Your task to perform on an android device: check data usage Image 0: 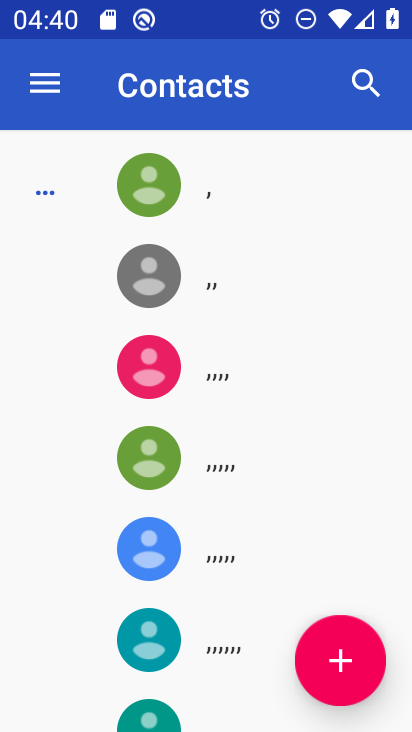
Step 0: press home button
Your task to perform on an android device: check data usage Image 1: 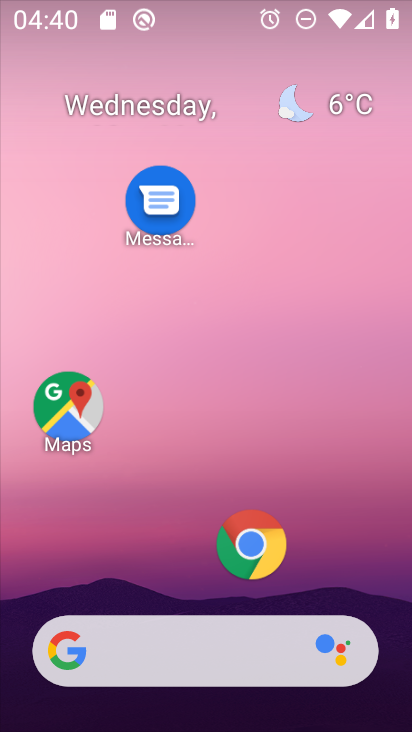
Step 1: drag from (167, 594) to (162, 57)
Your task to perform on an android device: check data usage Image 2: 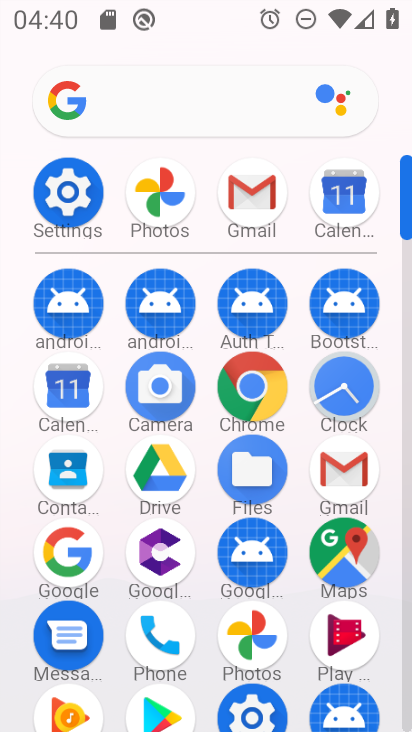
Step 2: click (60, 191)
Your task to perform on an android device: check data usage Image 3: 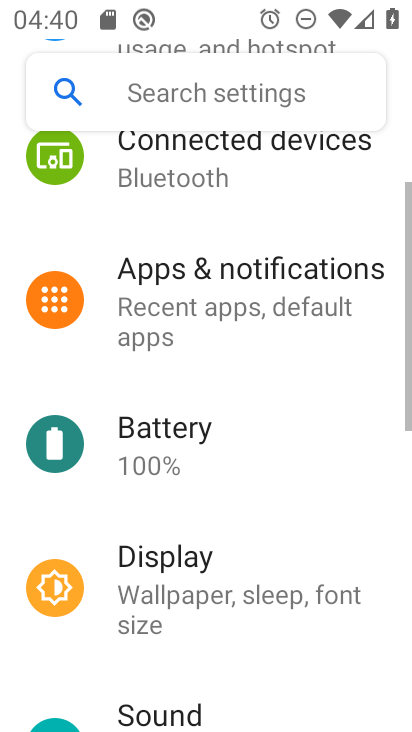
Step 3: drag from (225, 252) to (268, 616)
Your task to perform on an android device: check data usage Image 4: 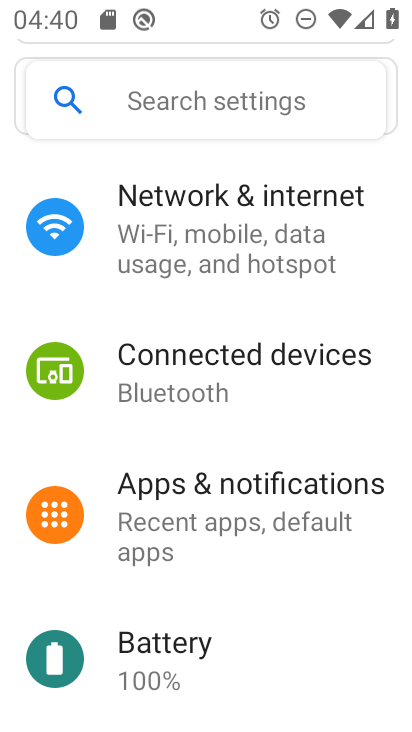
Step 4: click (218, 222)
Your task to perform on an android device: check data usage Image 5: 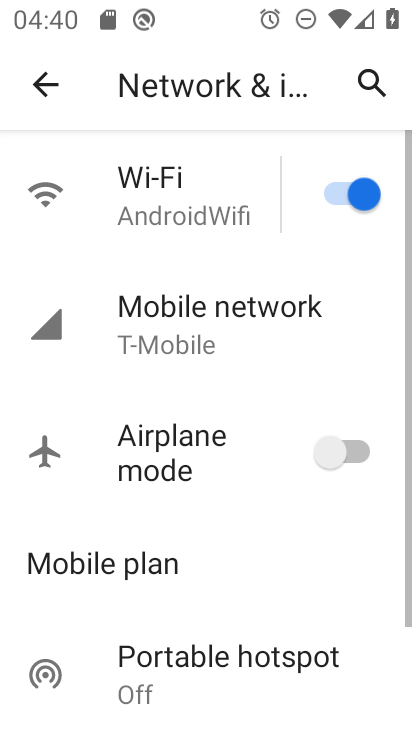
Step 5: click (110, 345)
Your task to perform on an android device: check data usage Image 6: 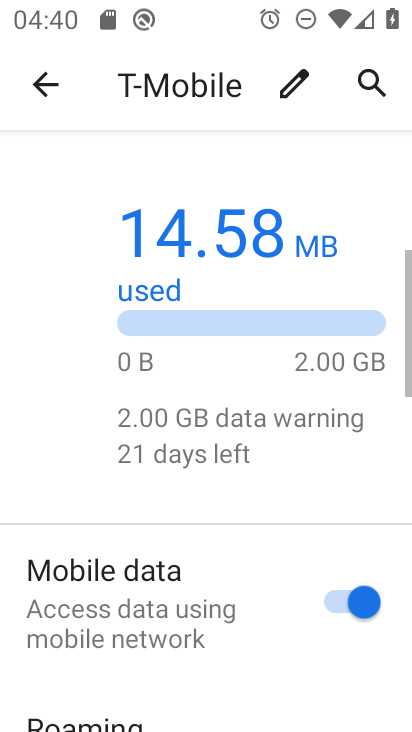
Step 6: drag from (201, 618) to (187, 269)
Your task to perform on an android device: check data usage Image 7: 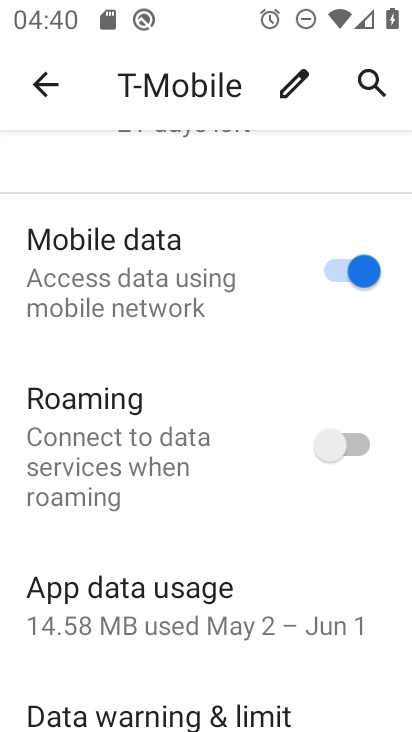
Step 7: click (140, 627)
Your task to perform on an android device: check data usage Image 8: 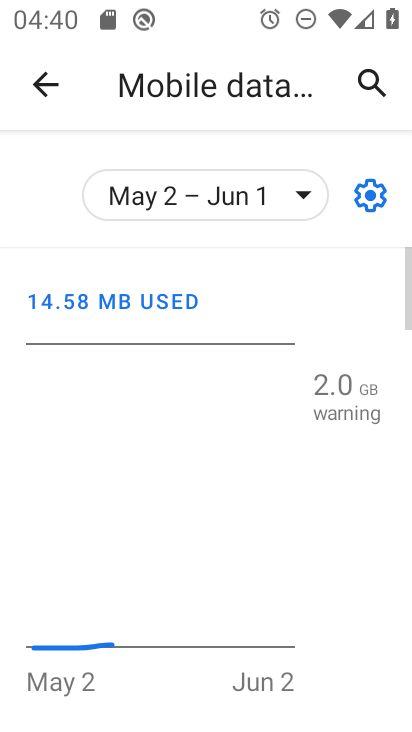
Step 8: task complete